Your task to perform on an android device: turn off location Image 0: 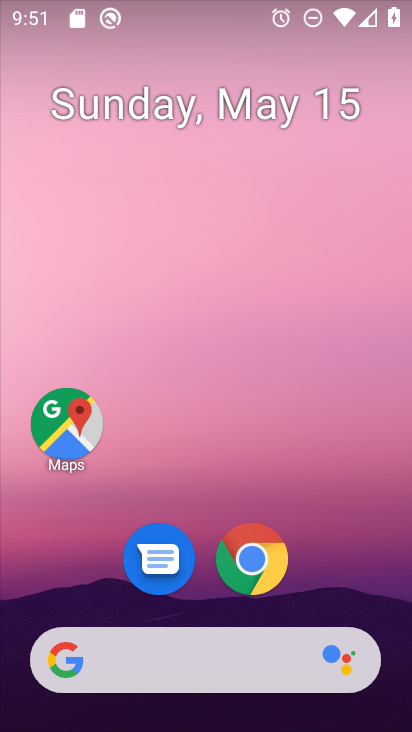
Step 0: drag from (356, 576) to (369, 239)
Your task to perform on an android device: turn off location Image 1: 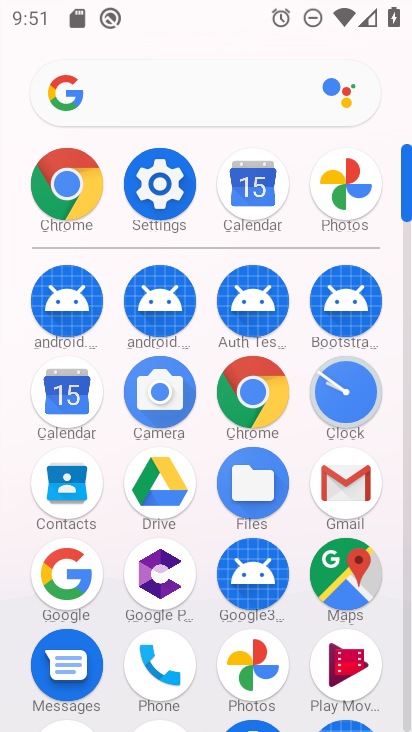
Step 1: click (163, 204)
Your task to perform on an android device: turn off location Image 2: 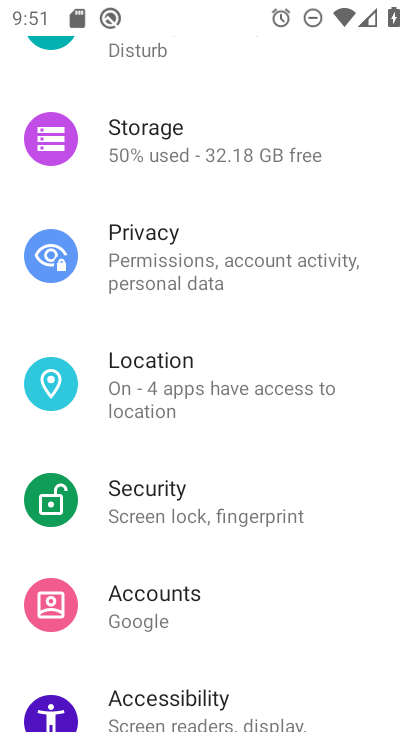
Step 2: click (192, 378)
Your task to perform on an android device: turn off location Image 3: 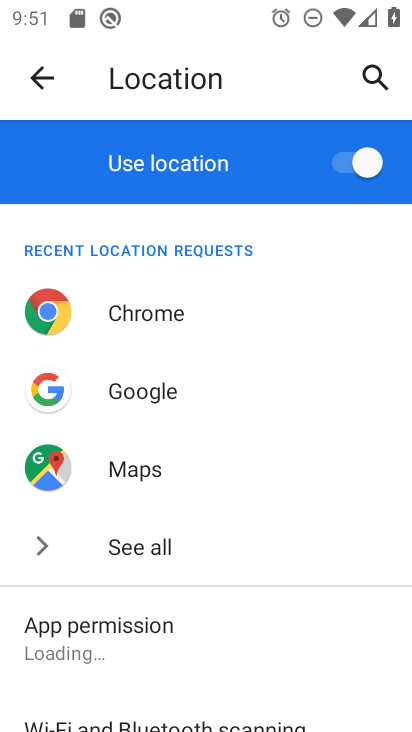
Step 3: task complete